Your task to perform on an android device: Go to CNN.com Image 0: 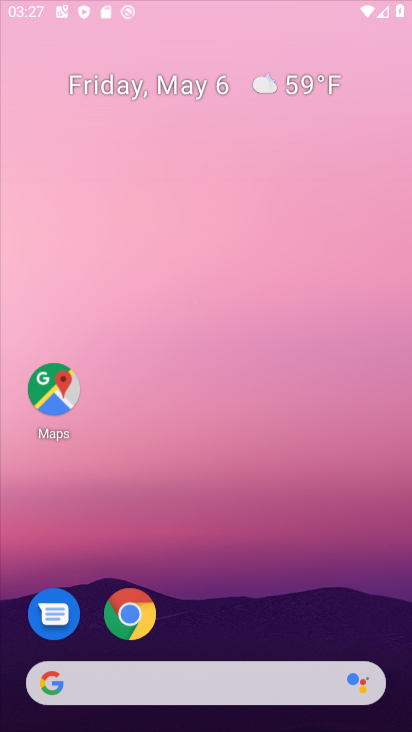
Step 0: drag from (302, 626) to (127, 0)
Your task to perform on an android device: Go to CNN.com Image 1: 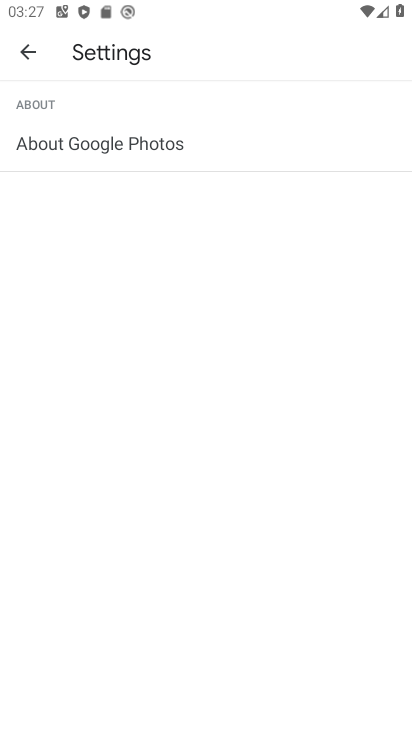
Step 1: click (22, 55)
Your task to perform on an android device: Go to CNN.com Image 2: 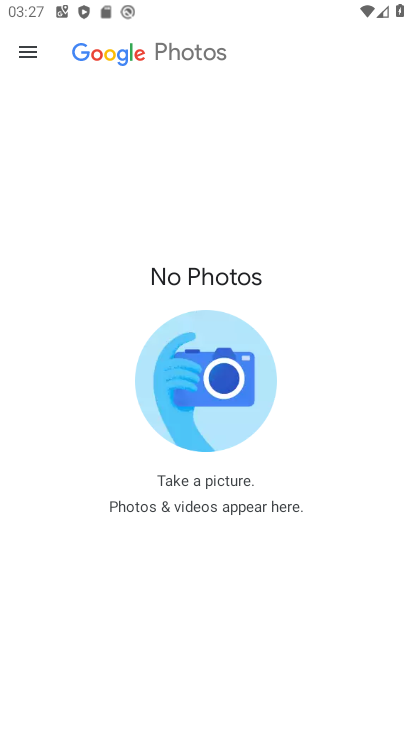
Step 2: press home button
Your task to perform on an android device: Go to CNN.com Image 3: 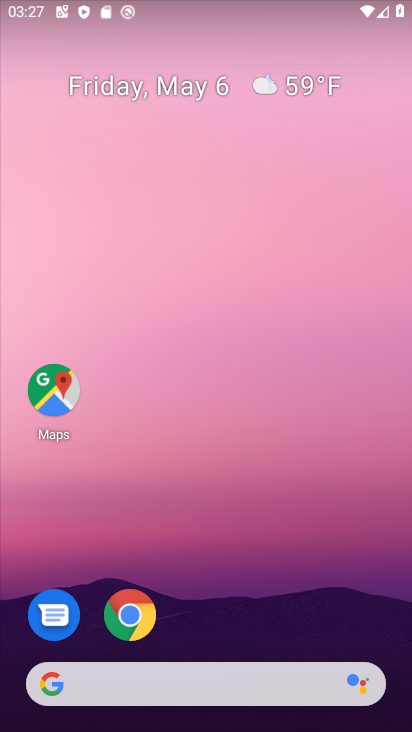
Step 3: drag from (344, 609) to (106, 14)
Your task to perform on an android device: Go to CNN.com Image 4: 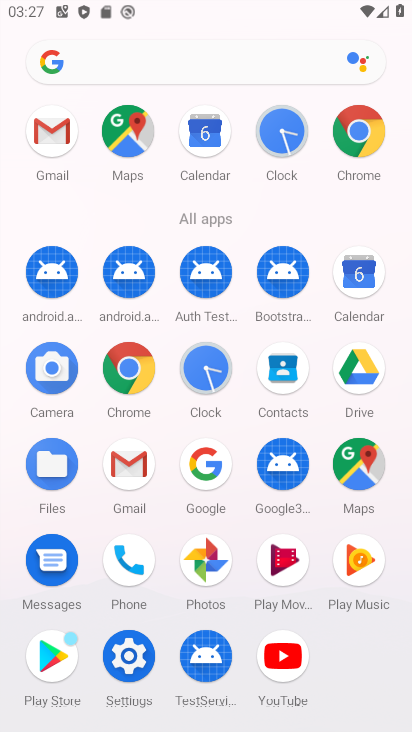
Step 4: click (330, 146)
Your task to perform on an android device: Go to CNN.com Image 5: 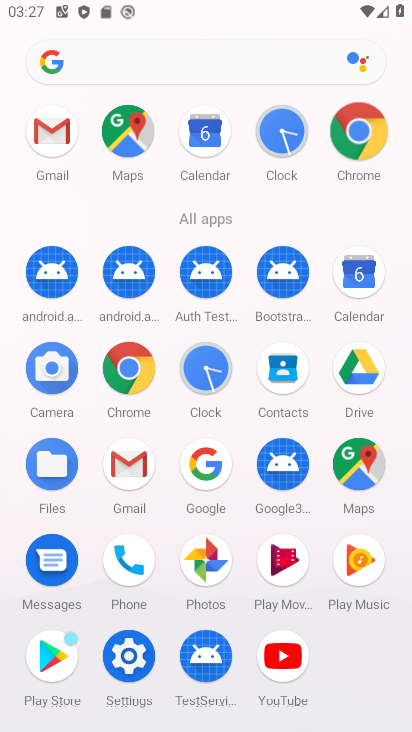
Step 5: click (349, 136)
Your task to perform on an android device: Go to CNN.com Image 6: 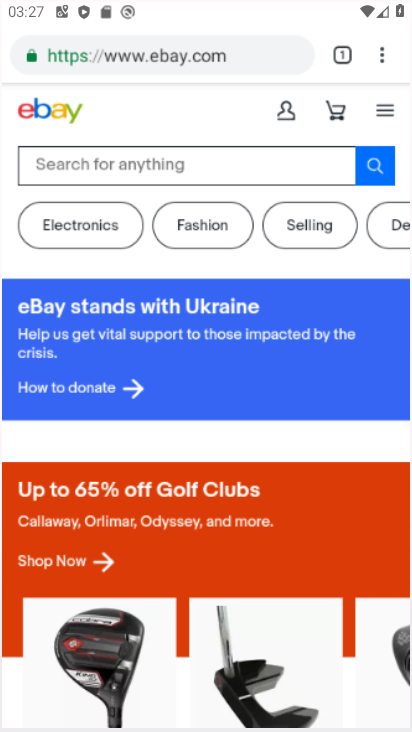
Step 6: click (350, 136)
Your task to perform on an android device: Go to CNN.com Image 7: 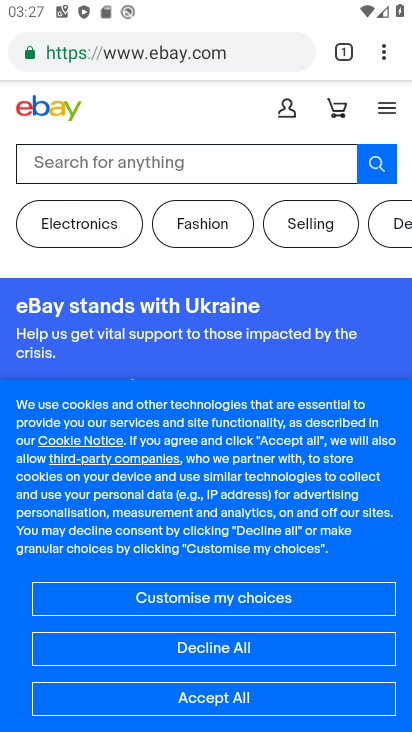
Step 7: drag from (384, 45) to (190, 99)
Your task to perform on an android device: Go to CNN.com Image 8: 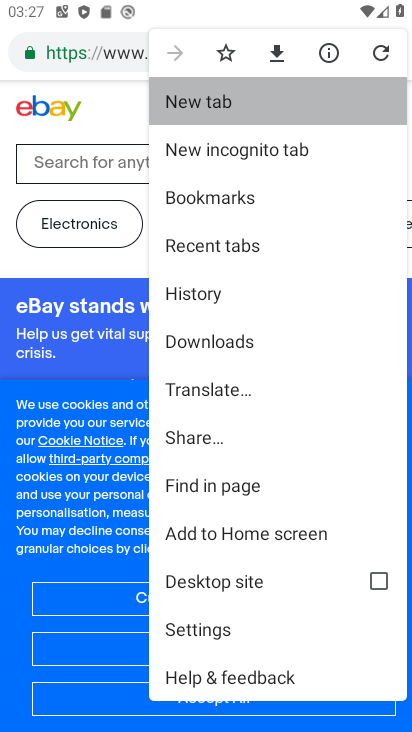
Step 8: click (190, 98)
Your task to perform on an android device: Go to CNN.com Image 9: 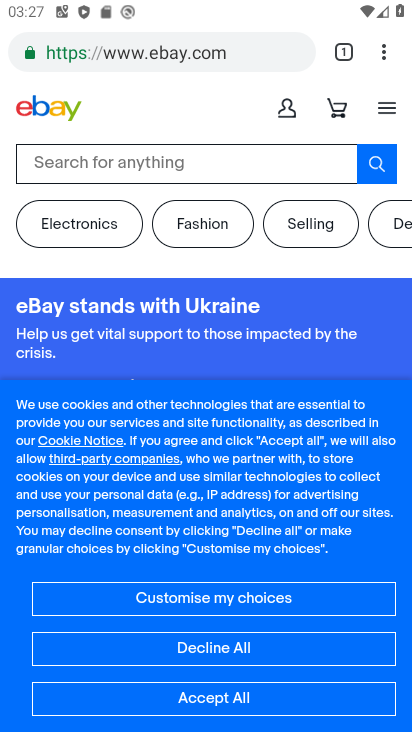
Step 9: click (190, 98)
Your task to perform on an android device: Go to CNN.com Image 10: 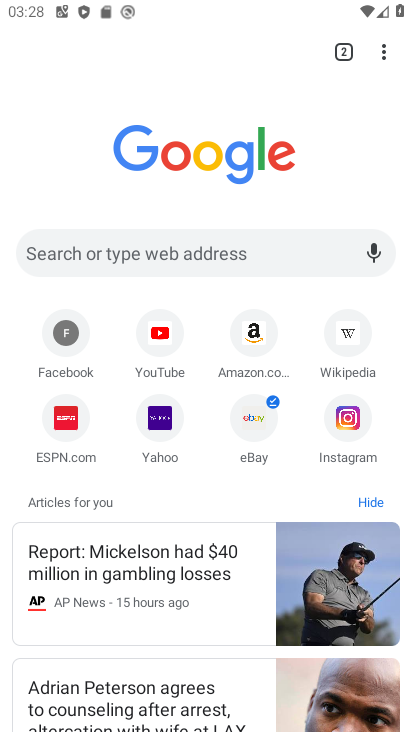
Step 10: click (46, 247)
Your task to perform on an android device: Go to CNN.com Image 11: 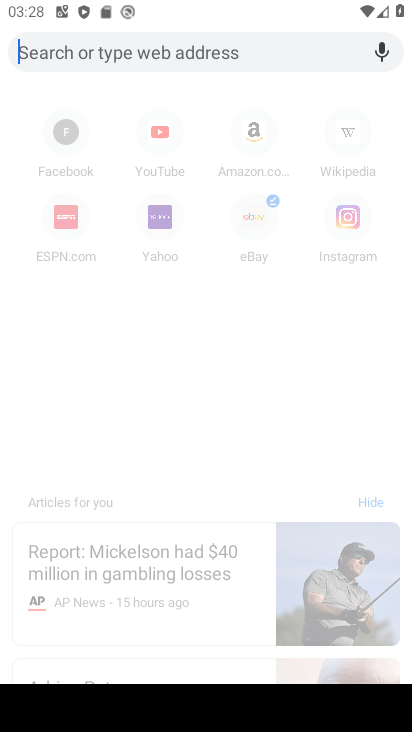
Step 11: type "www.cnn.com"
Your task to perform on an android device: Go to CNN.com Image 12: 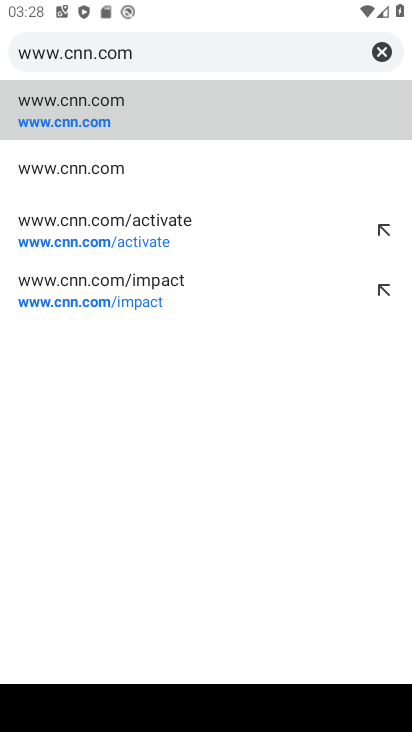
Step 12: click (72, 112)
Your task to perform on an android device: Go to CNN.com Image 13: 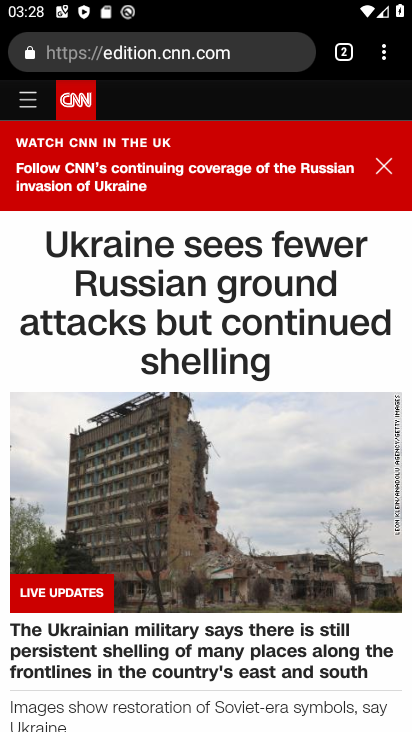
Step 13: task complete